Your task to perform on an android device: remove spam from my inbox in the gmail app Image 0: 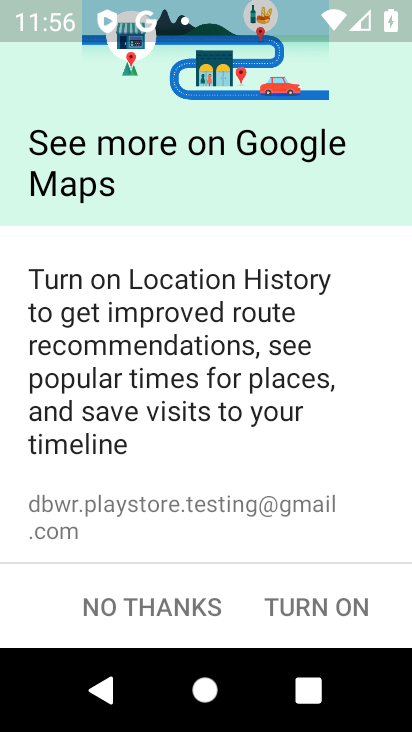
Step 0: press home button
Your task to perform on an android device: remove spam from my inbox in the gmail app Image 1: 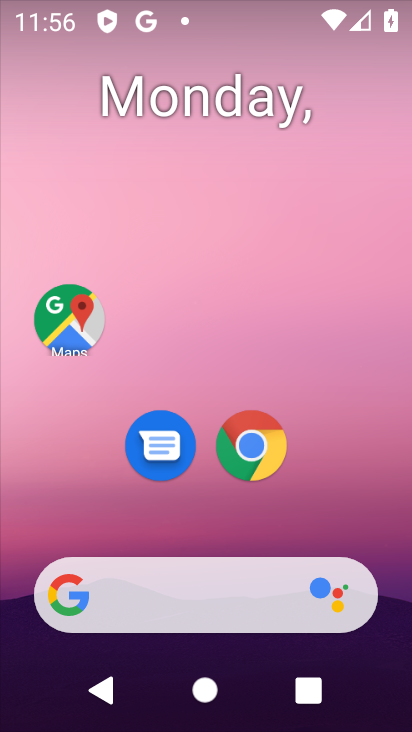
Step 1: drag from (95, 538) to (115, 134)
Your task to perform on an android device: remove spam from my inbox in the gmail app Image 2: 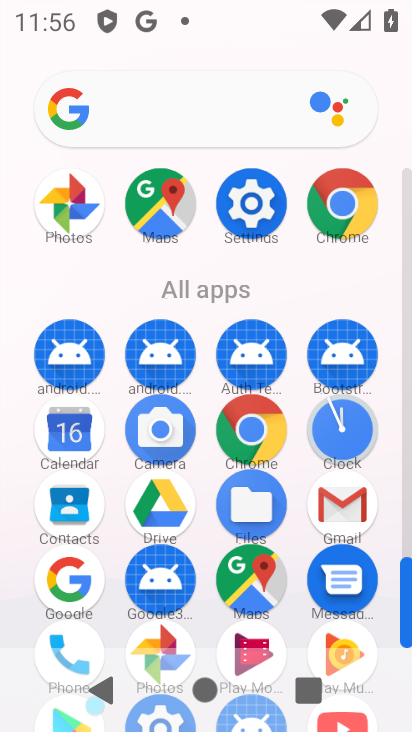
Step 2: drag from (123, 674) to (166, 419)
Your task to perform on an android device: remove spam from my inbox in the gmail app Image 3: 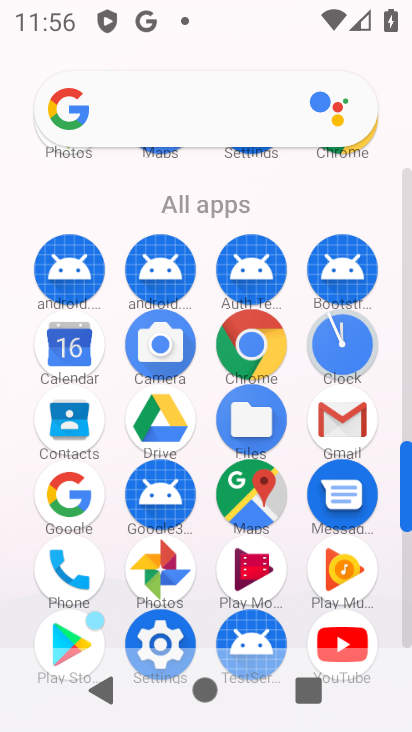
Step 3: click (341, 406)
Your task to perform on an android device: remove spam from my inbox in the gmail app Image 4: 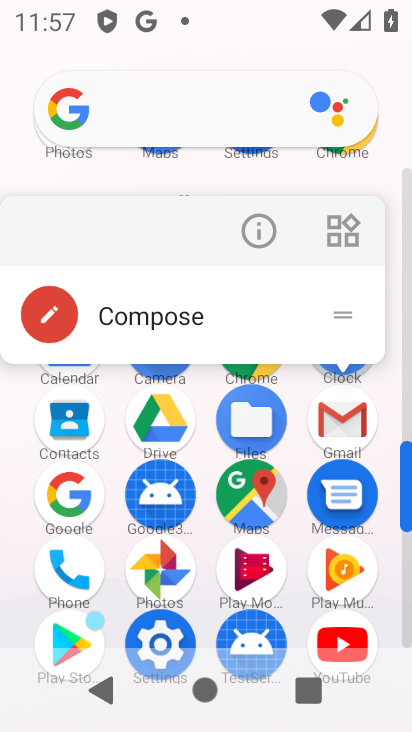
Step 4: click (349, 424)
Your task to perform on an android device: remove spam from my inbox in the gmail app Image 5: 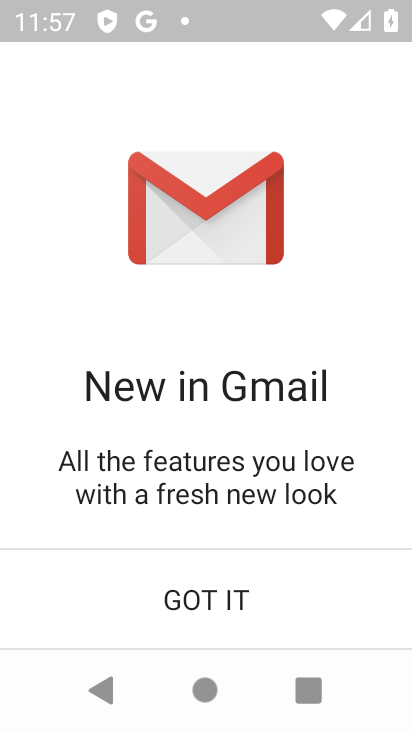
Step 5: click (303, 606)
Your task to perform on an android device: remove spam from my inbox in the gmail app Image 6: 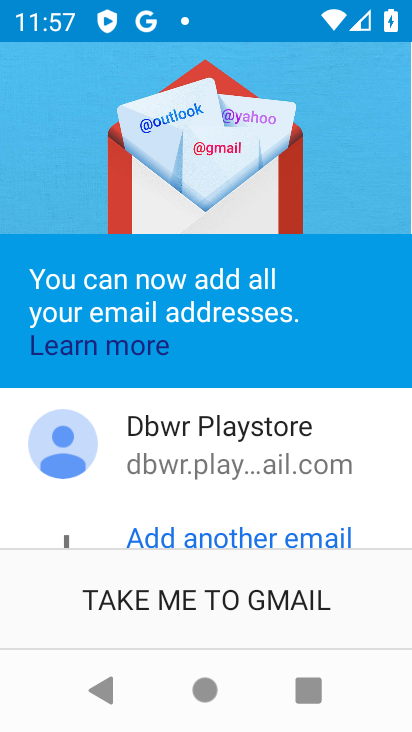
Step 6: click (312, 617)
Your task to perform on an android device: remove spam from my inbox in the gmail app Image 7: 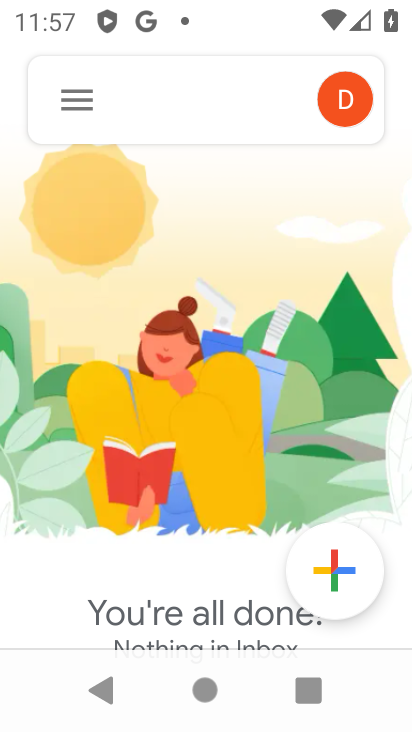
Step 7: click (79, 111)
Your task to perform on an android device: remove spam from my inbox in the gmail app Image 8: 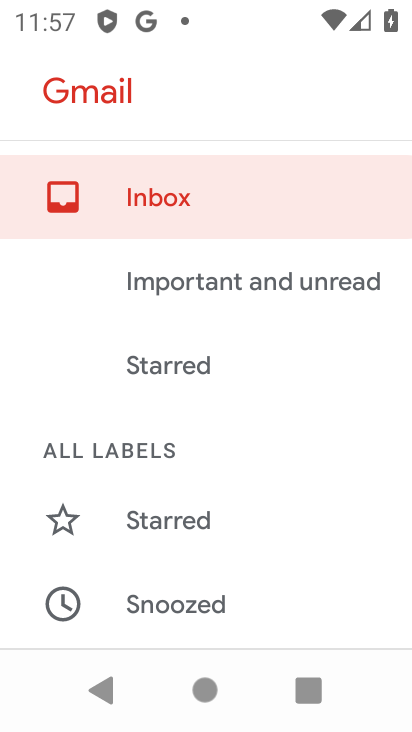
Step 8: drag from (162, 603) to (294, 203)
Your task to perform on an android device: remove spam from my inbox in the gmail app Image 9: 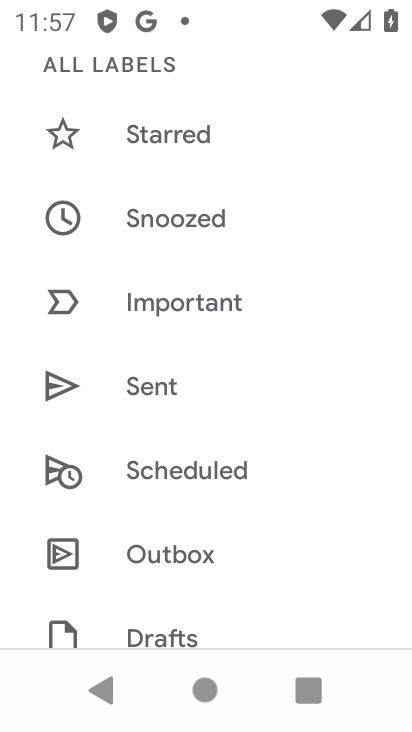
Step 9: drag from (295, 331) to (369, 100)
Your task to perform on an android device: remove spam from my inbox in the gmail app Image 10: 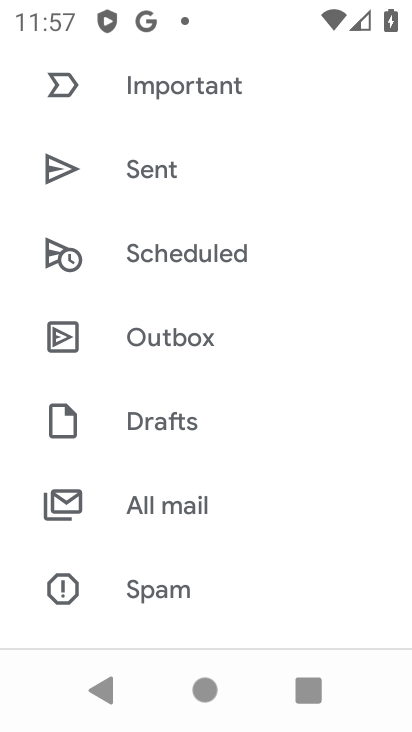
Step 10: drag from (225, 547) to (284, 333)
Your task to perform on an android device: remove spam from my inbox in the gmail app Image 11: 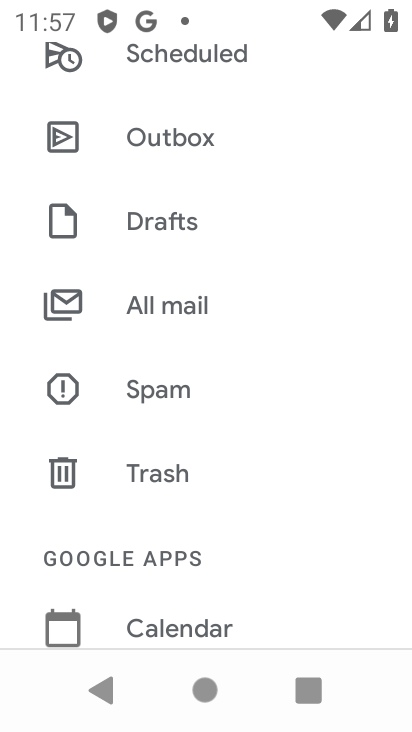
Step 11: click (182, 399)
Your task to perform on an android device: remove spam from my inbox in the gmail app Image 12: 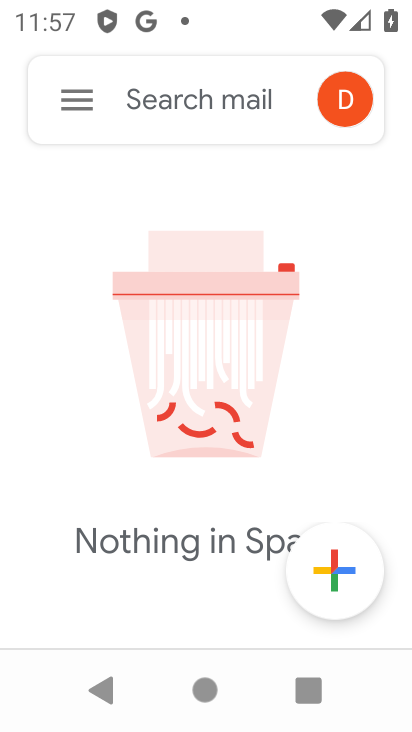
Step 12: task complete